Your task to perform on an android device: Toggle the flashlight Image 0: 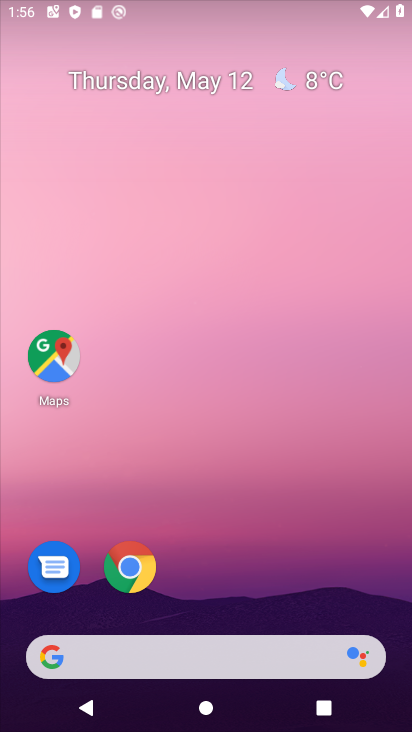
Step 0: click (214, 593)
Your task to perform on an android device: Toggle the flashlight Image 1: 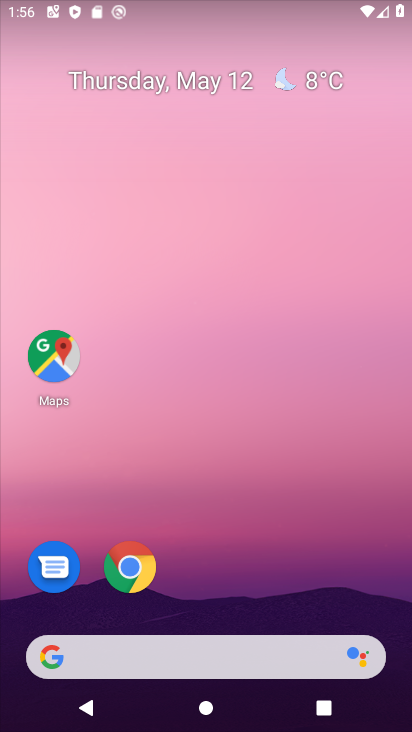
Step 1: drag from (205, 256) to (205, 161)
Your task to perform on an android device: Toggle the flashlight Image 2: 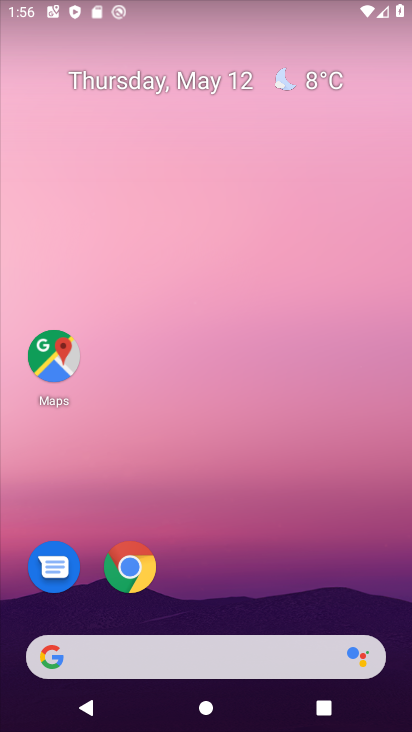
Step 2: drag from (258, 603) to (228, 15)
Your task to perform on an android device: Toggle the flashlight Image 3: 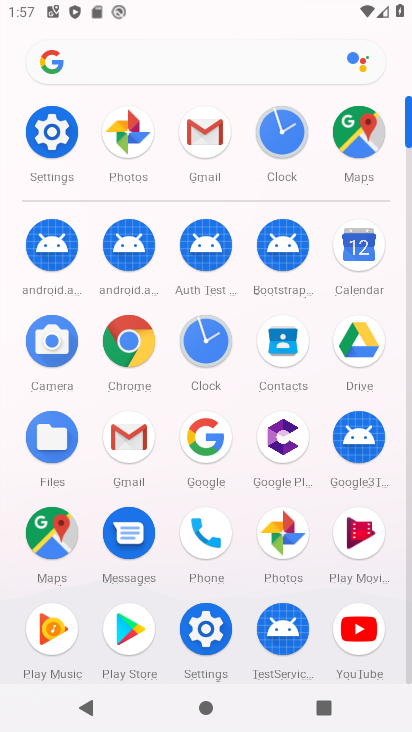
Step 3: click (53, 124)
Your task to perform on an android device: Toggle the flashlight Image 4: 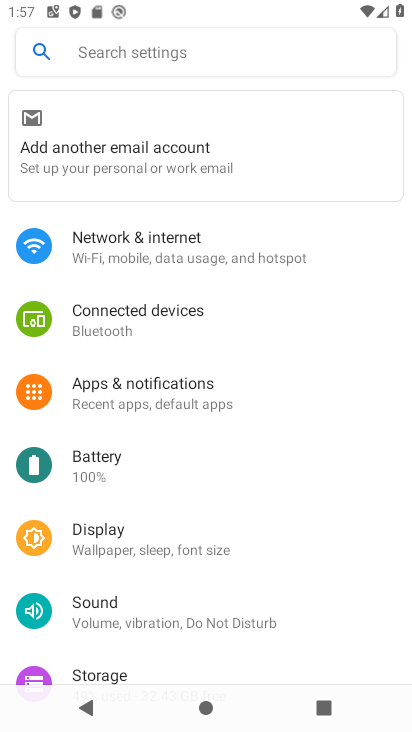
Step 4: click (169, 53)
Your task to perform on an android device: Toggle the flashlight Image 5: 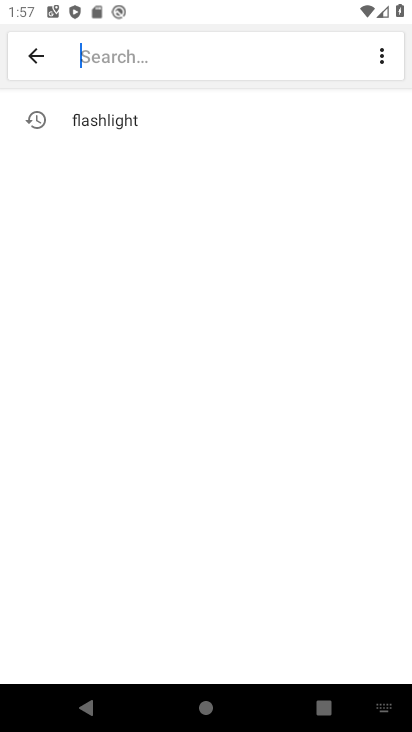
Step 5: click (133, 114)
Your task to perform on an android device: Toggle the flashlight Image 6: 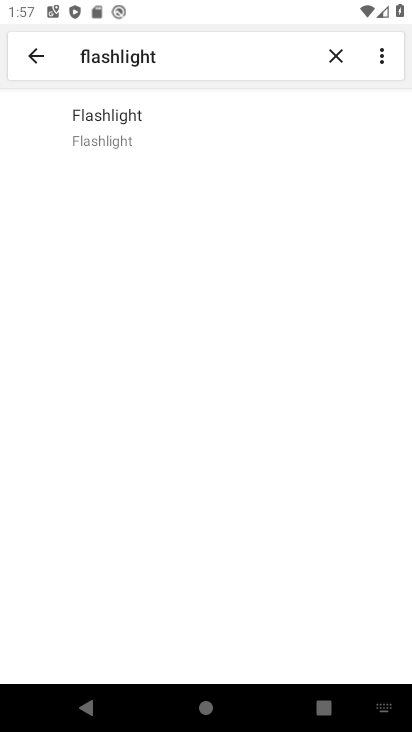
Step 6: click (149, 118)
Your task to perform on an android device: Toggle the flashlight Image 7: 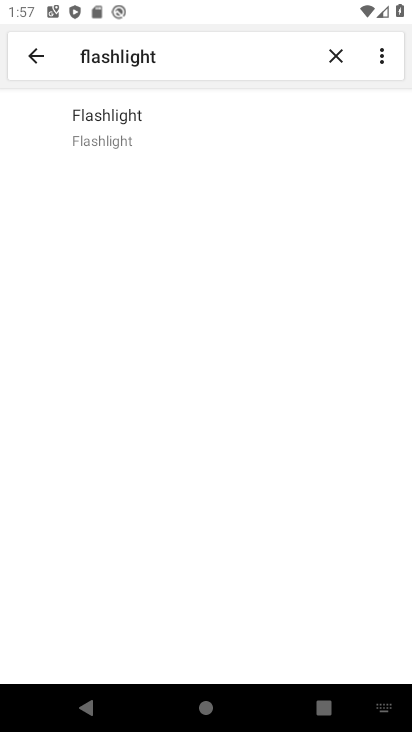
Step 7: task complete